Your task to perform on an android device: Open calendar and show me the second week of next month Image 0: 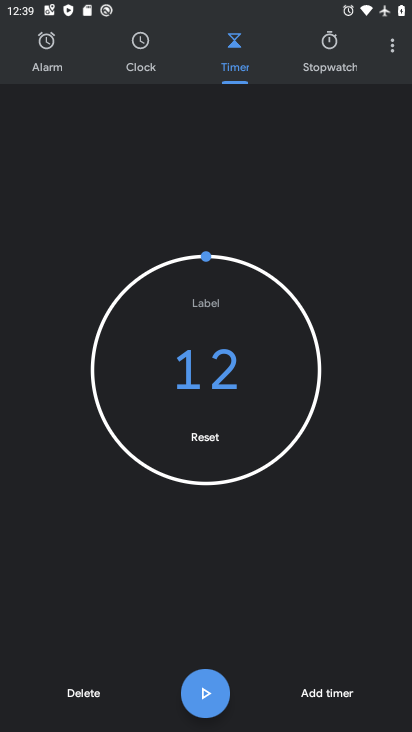
Step 0: press home button
Your task to perform on an android device: Open calendar and show me the second week of next month Image 1: 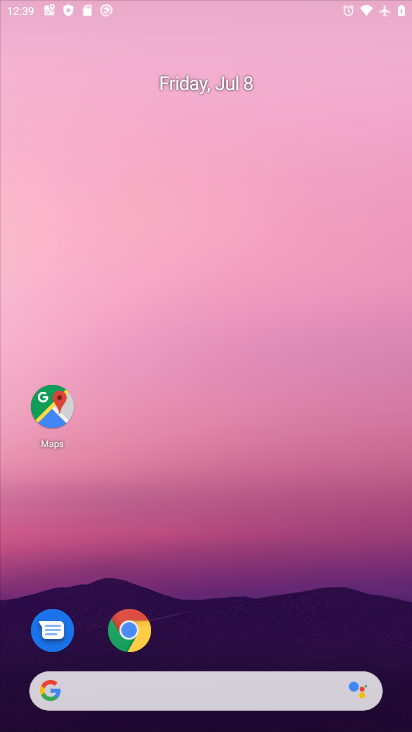
Step 1: drag from (218, 581) to (212, 211)
Your task to perform on an android device: Open calendar and show me the second week of next month Image 2: 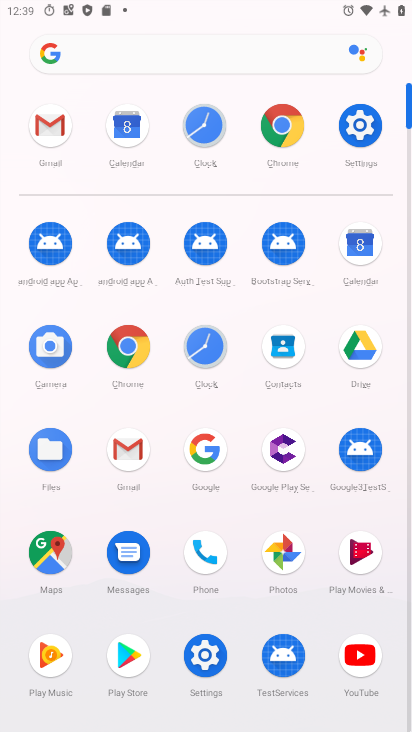
Step 2: click (355, 262)
Your task to perform on an android device: Open calendar and show me the second week of next month Image 3: 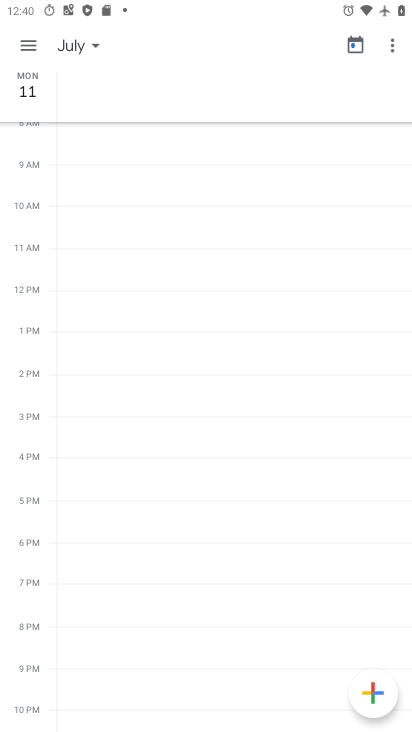
Step 3: click (97, 47)
Your task to perform on an android device: Open calendar and show me the second week of next month Image 4: 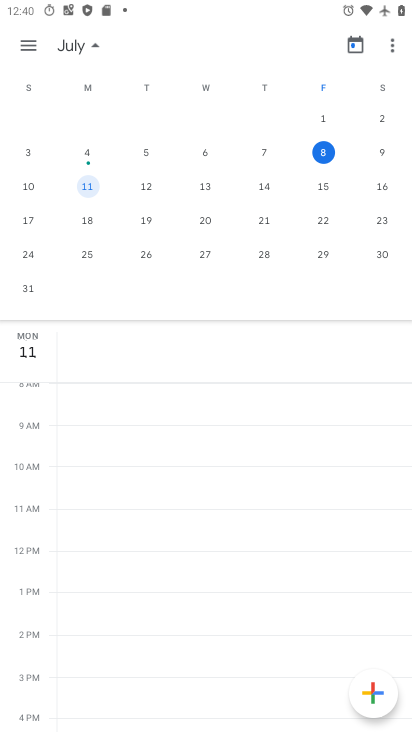
Step 4: drag from (279, 213) to (24, 213)
Your task to perform on an android device: Open calendar and show me the second week of next month Image 5: 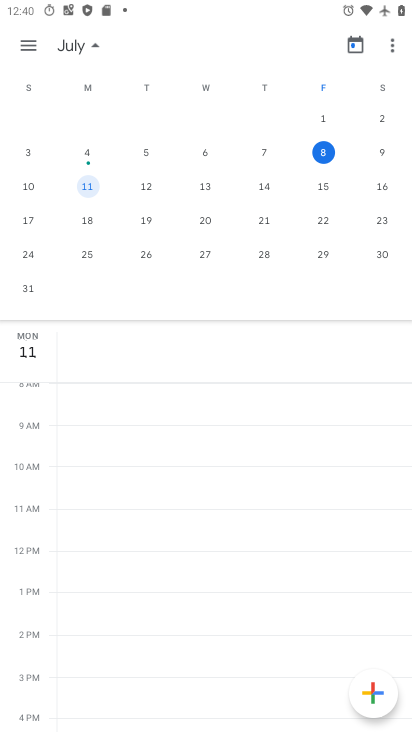
Step 5: drag from (345, 185) to (32, 187)
Your task to perform on an android device: Open calendar and show me the second week of next month Image 6: 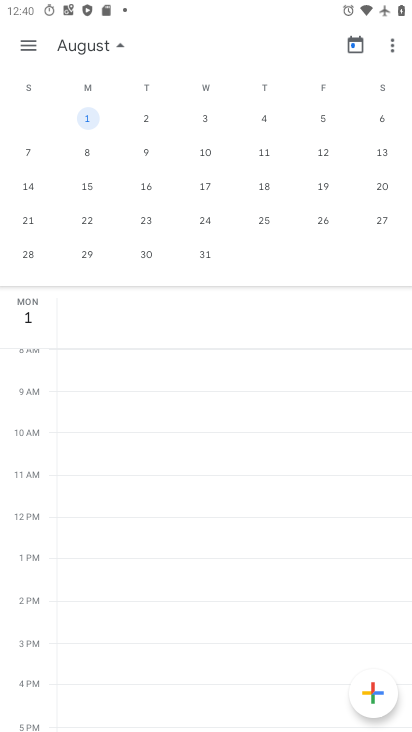
Step 6: click (89, 152)
Your task to perform on an android device: Open calendar and show me the second week of next month Image 7: 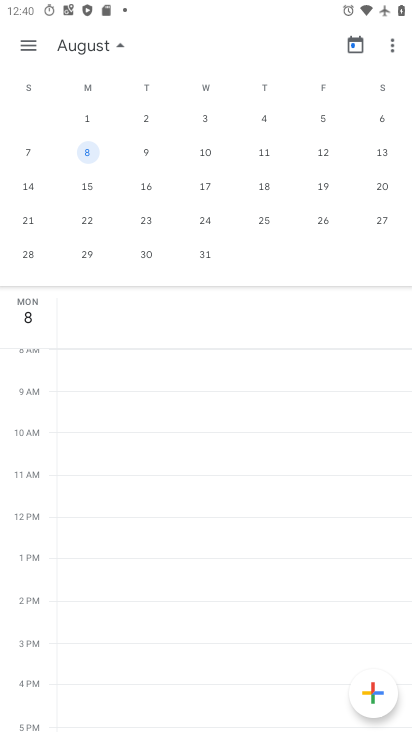
Step 7: task complete